Your task to perform on an android device: snooze an email in the gmail app Image 0: 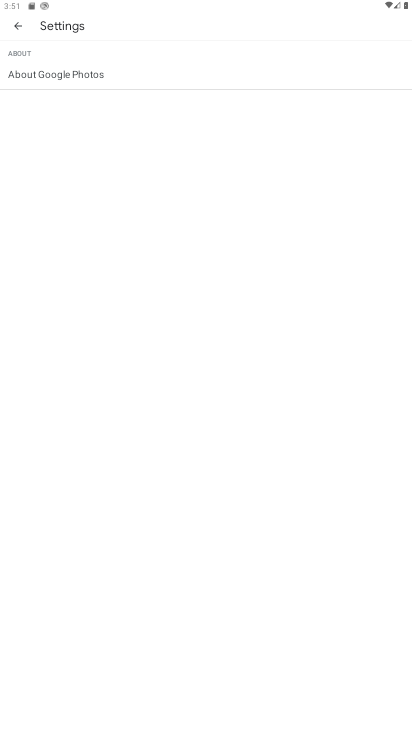
Step 0: press home button
Your task to perform on an android device: snooze an email in the gmail app Image 1: 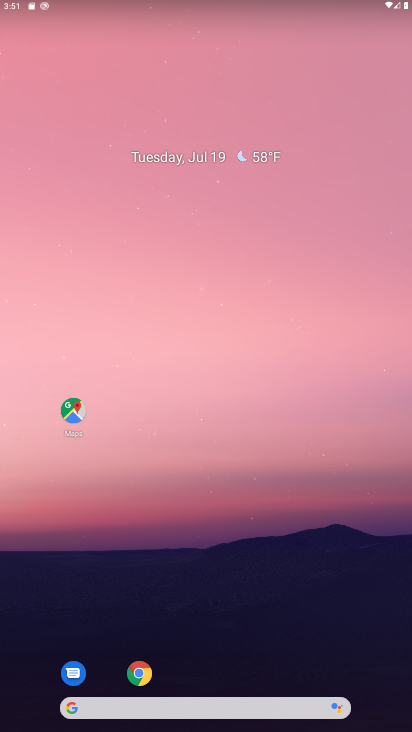
Step 1: drag from (111, 684) to (202, 90)
Your task to perform on an android device: snooze an email in the gmail app Image 2: 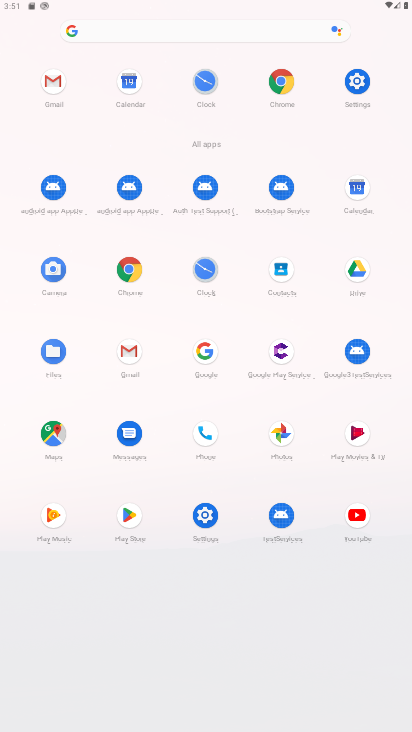
Step 2: click (125, 349)
Your task to perform on an android device: snooze an email in the gmail app Image 3: 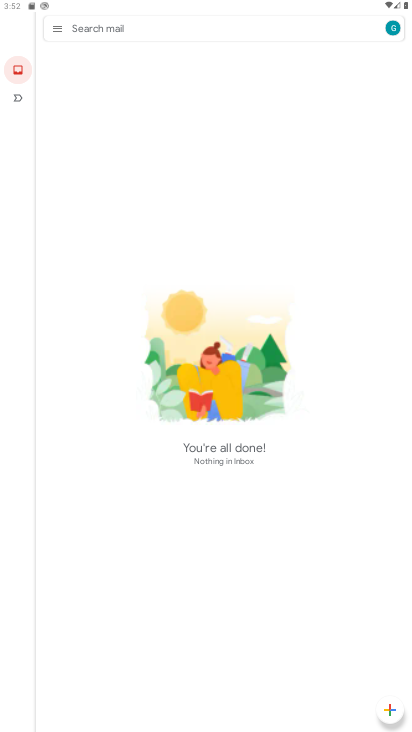
Step 3: click (52, 27)
Your task to perform on an android device: snooze an email in the gmail app Image 4: 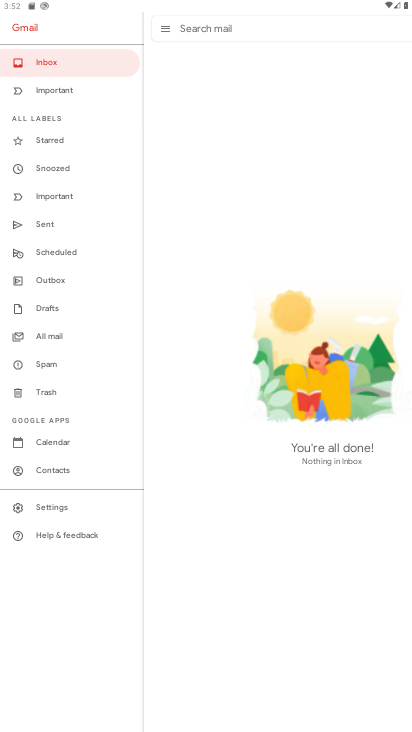
Step 4: click (65, 163)
Your task to perform on an android device: snooze an email in the gmail app Image 5: 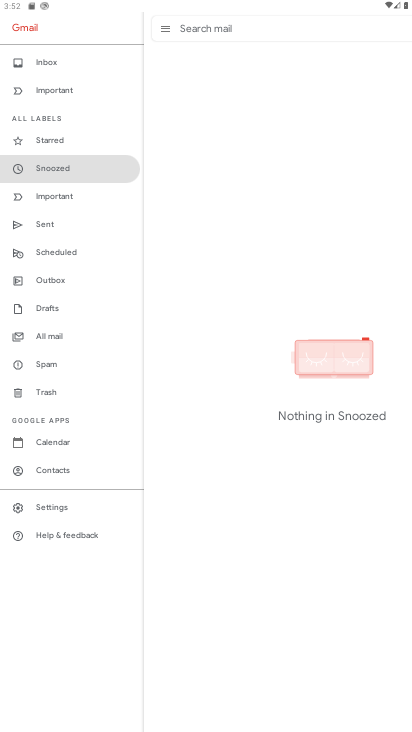
Step 5: task complete